Your task to perform on an android device: Open Google Image 0: 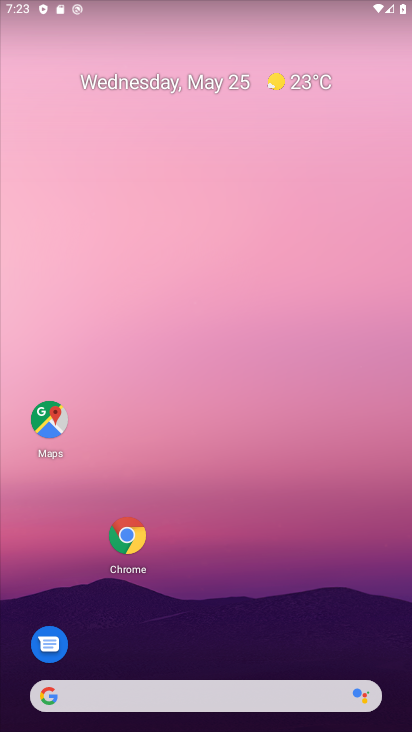
Step 0: drag from (218, 691) to (256, 15)
Your task to perform on an android device: Open Google Image 1: 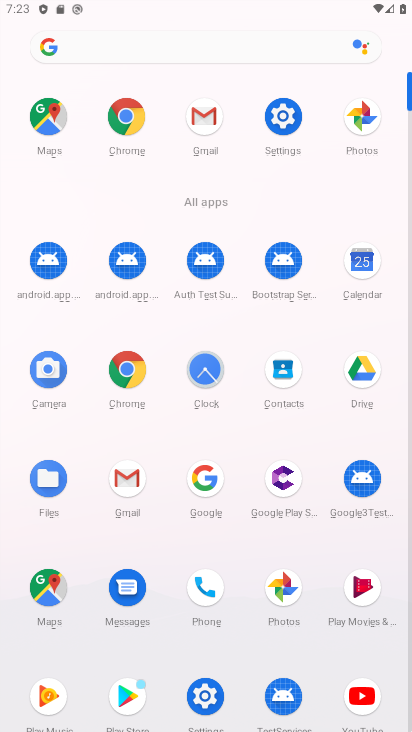
Step 1: click (215, 479)
Your task to perform on an android device: Open Google Image 2: 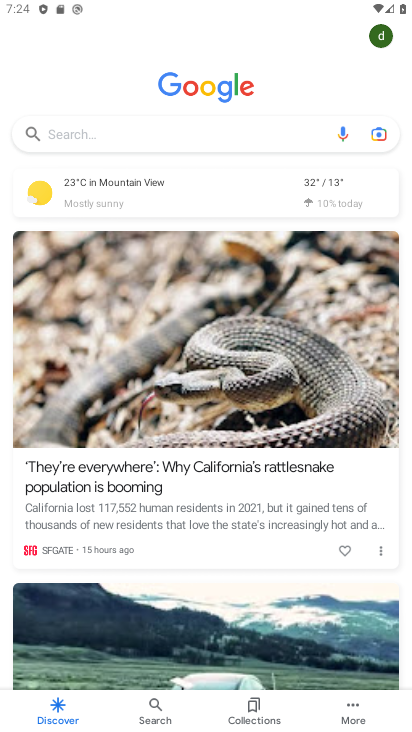
Step 2: task complete